Your task to perform on an android device: turn smart compose on in the gmail app Image 0: 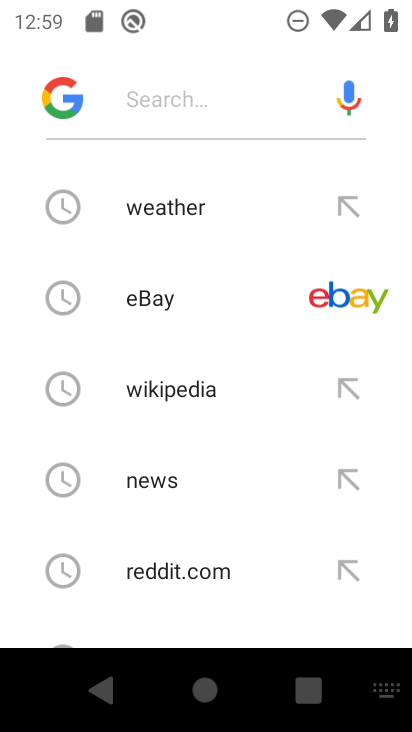
Step 0: press home button
Your task to perform on an android device: turn smart compose on in the gmail app Image 1: 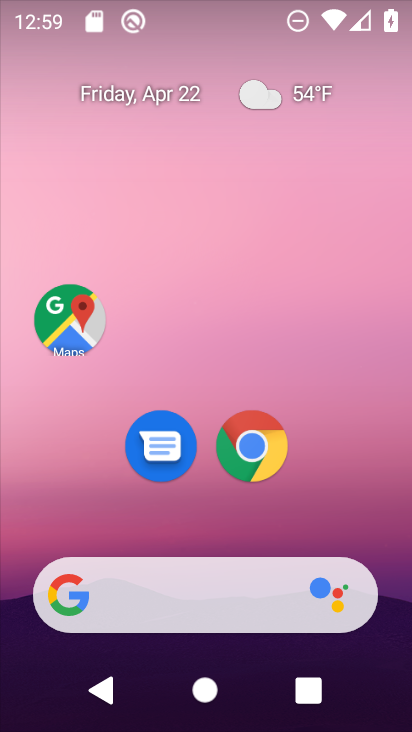
Step 1: drag from (405, 571) to (303, 128)
Your task to perform on an android device: turn smart compose on in the gmail app Image 2: 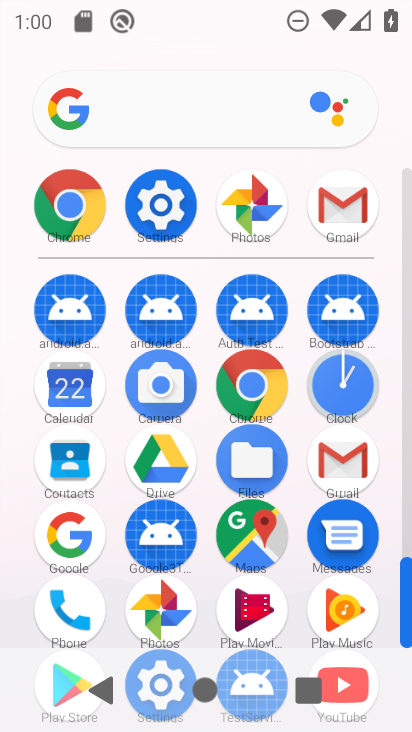
Step 2: click (338, 192)
Your task to perform on an android device: turn smart compose on in the gmail app Image 3: 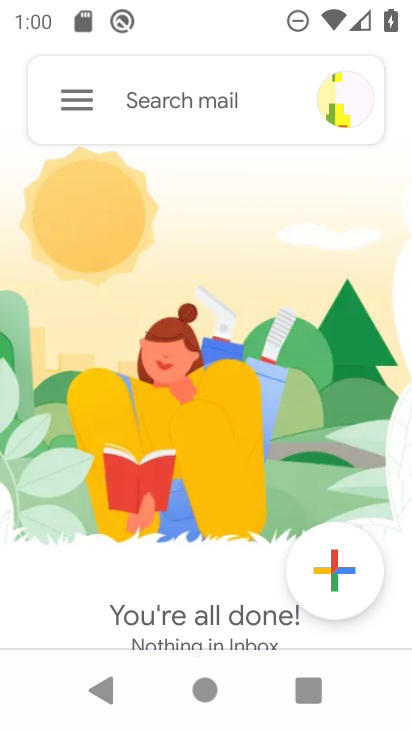
Step 3: click (81, 110)
Your task to perform on an android device: turn smart compose on in the gmail app Image 4: 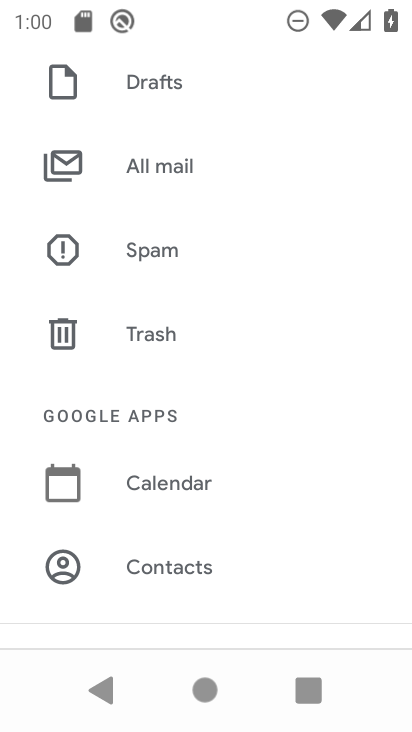
Step 4: drag from (247, 567) to (246, 137)
Your task to perform on an android device: turn smart compose on in the gmail app Image 5: 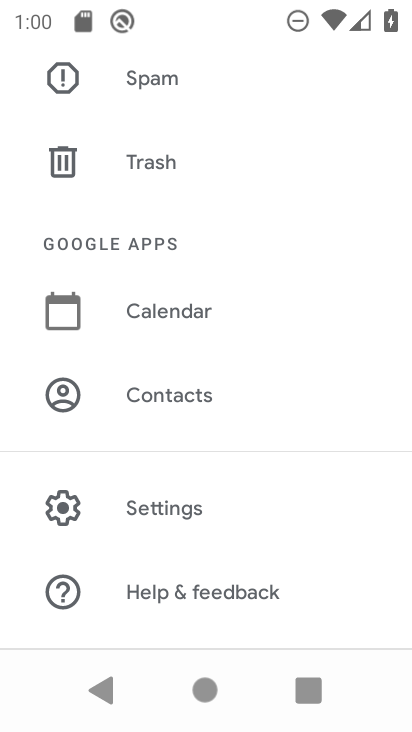
Step 5: click (247, 498)
Your task to perform on an android device: turn smart compose on in the gmail app Image 6: 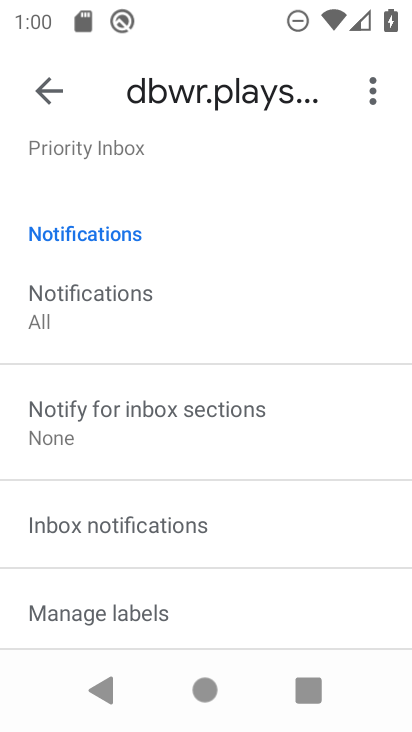
Step 6: task complete